Your task to perform on an android device: find snoozed emails in the gmail app Image 0: 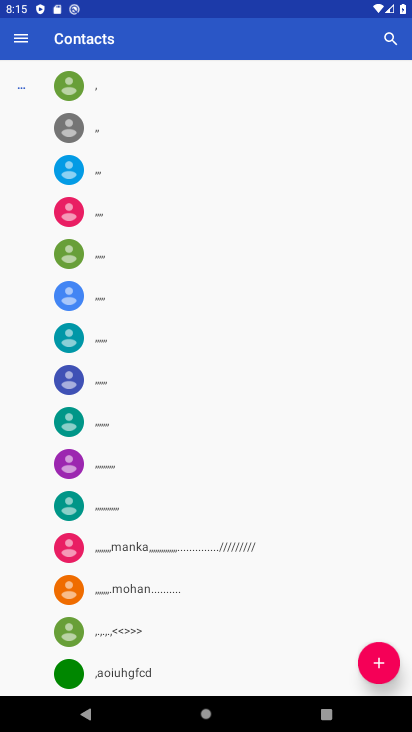
Step 0: press home button
Your task to perform on an android device: find snoozed emails in the gmail app Image 1: 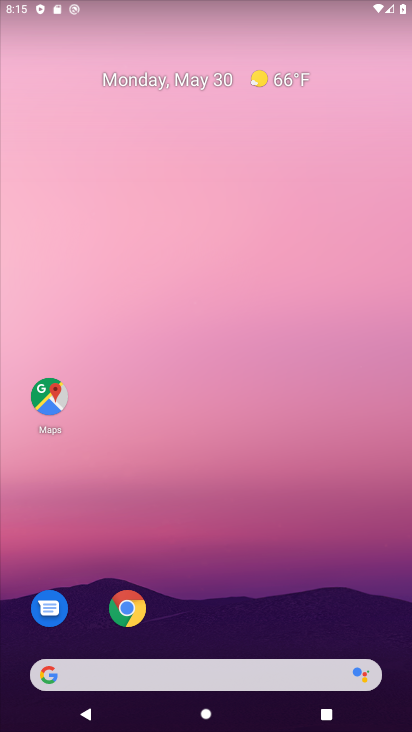
Step 1: drag from (229, 718) to (222, 64)
Your task to perform on an android device: find snoozed emails in the gmail app Image 2: 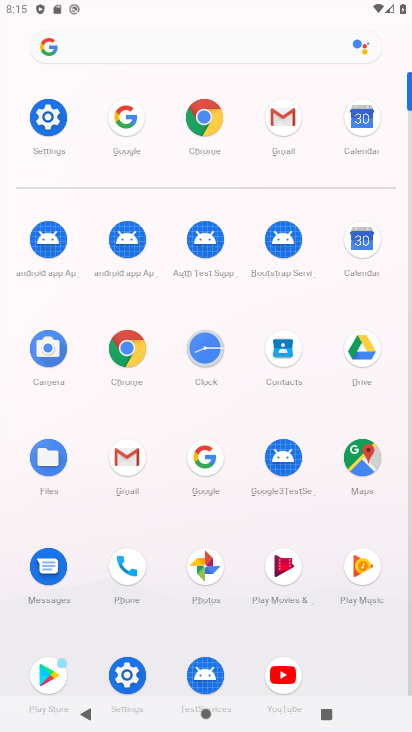
Step 2: click (125, 458)
Your task to perform on an android device: find snoozed emails in the gmail app Image 3: 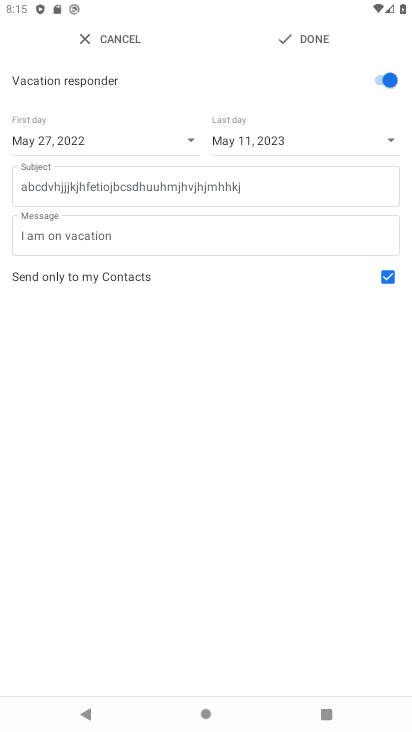
Step 3: press home button
Your task to perform on an android device: find snoozed emails in the gmail app Image 4: 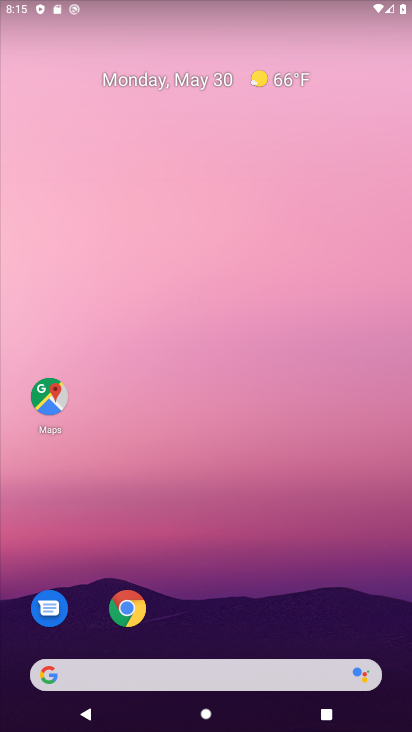
Step 4: drag from (239, 665) to (192, 30)
Your task to perform on an android device: find snoozed emails in the gmail app Image 5: 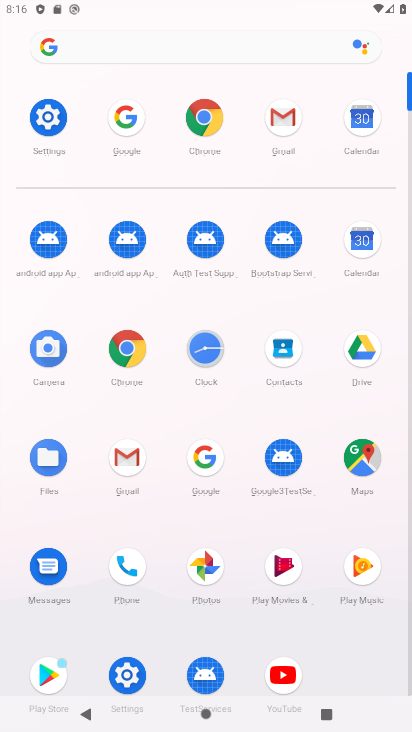
Step 5: click (131, 462)
Your task to perform on an android device: find snoozed emails in the gmail app Image 6: 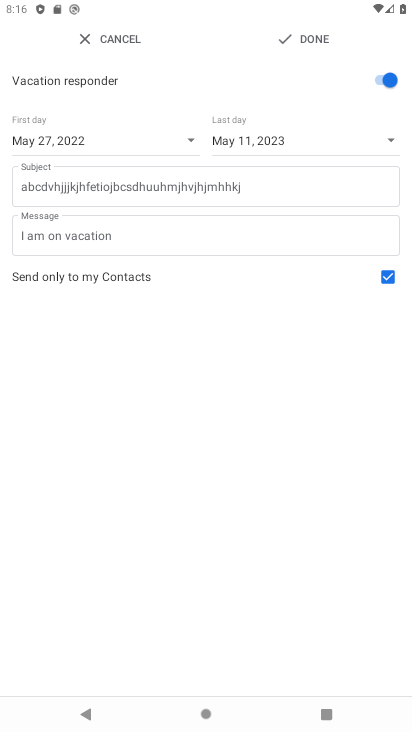
Step 6: click (80, 35)
Your task to perform on an android device: find snoozed emails in the gmail app Image 7: 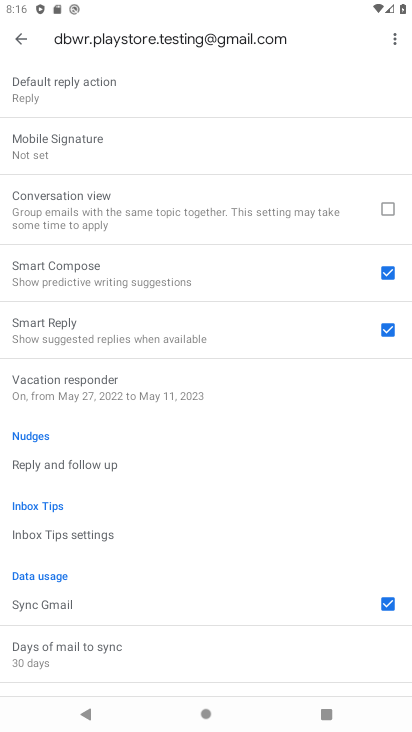
Step 7: click (21, 41)
Your task to perform on an android device: find snoozed emails in the gmail app Image 8: 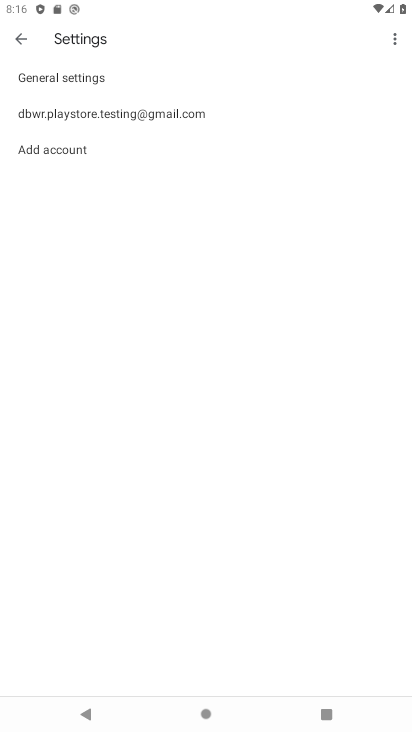
Step 8: click (18, 41)
Your task to perform on an android device: find snoozed emails in the gmail app Image 9: 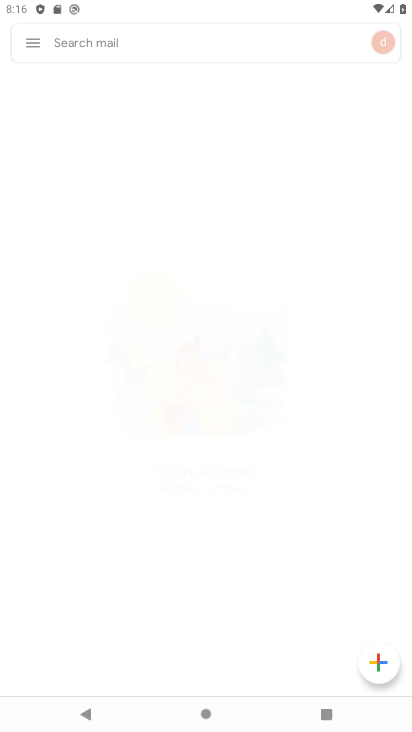
Step 9: click (30, 41)
Your task to perform on an android device: find snoozed emails in the gmail app Image 10: 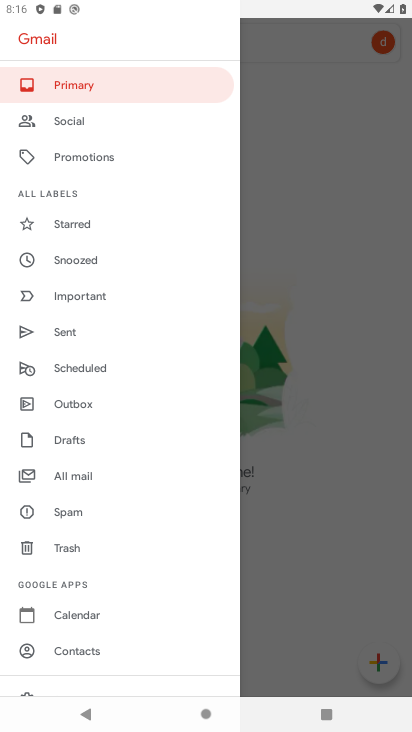
Step 10: click (90, 261)
Your task to perform on an android device: find snoozed emails in the gmail app Image 11: 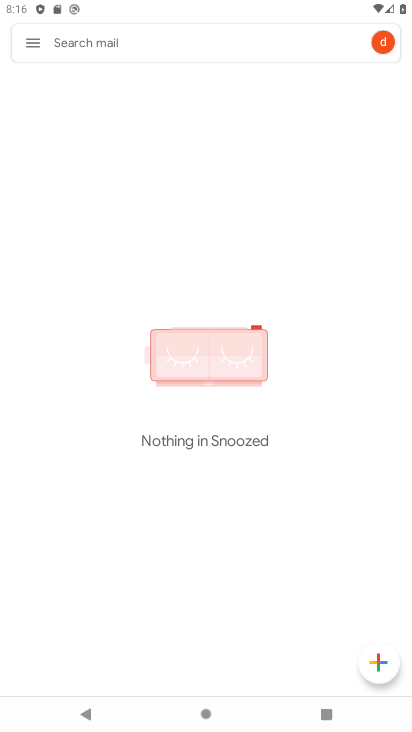
Step 11: task complete